Your task to perform on an android device: turn off data saver in the chrome app Image 0: 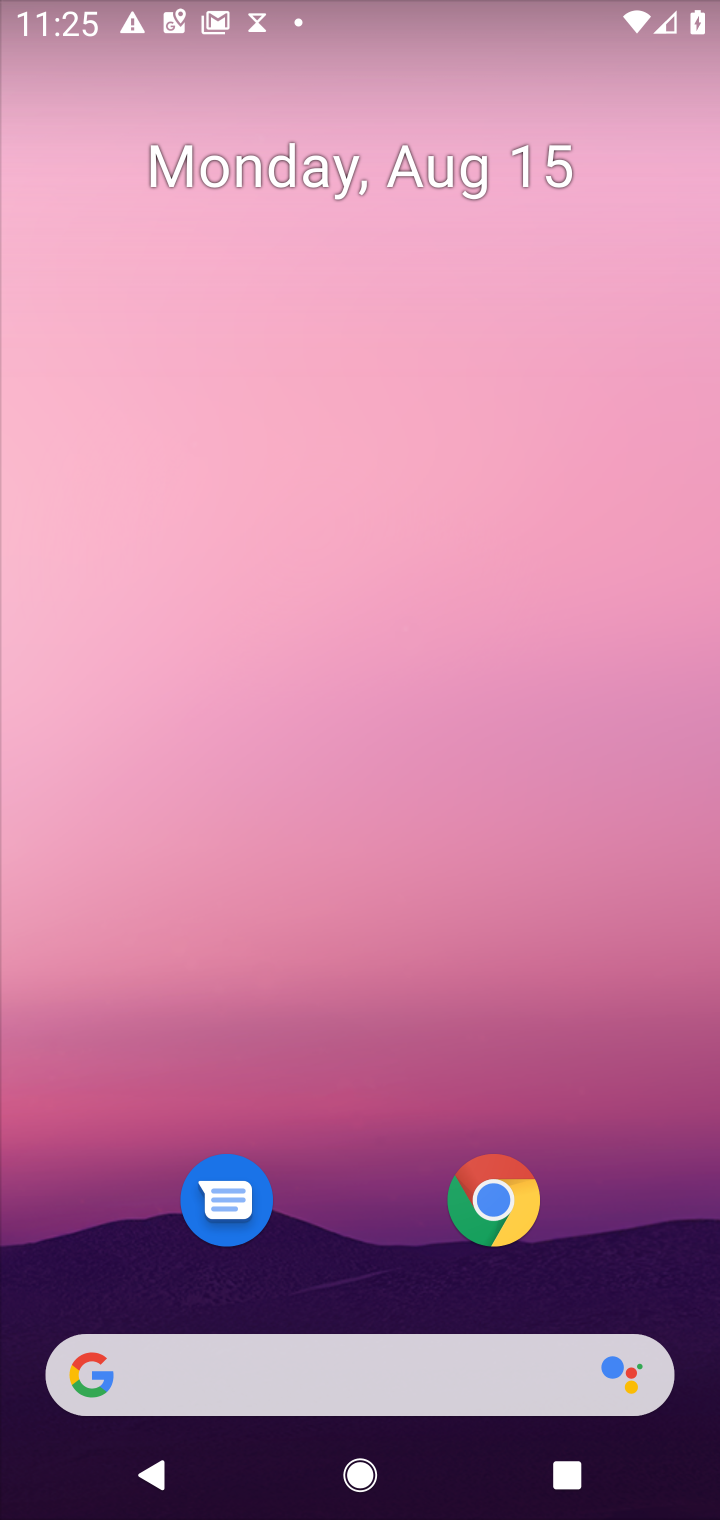
Step 0: click (451, 1205)
Your task to perform on an android device: turn off data saver in the chrome app Image 1: 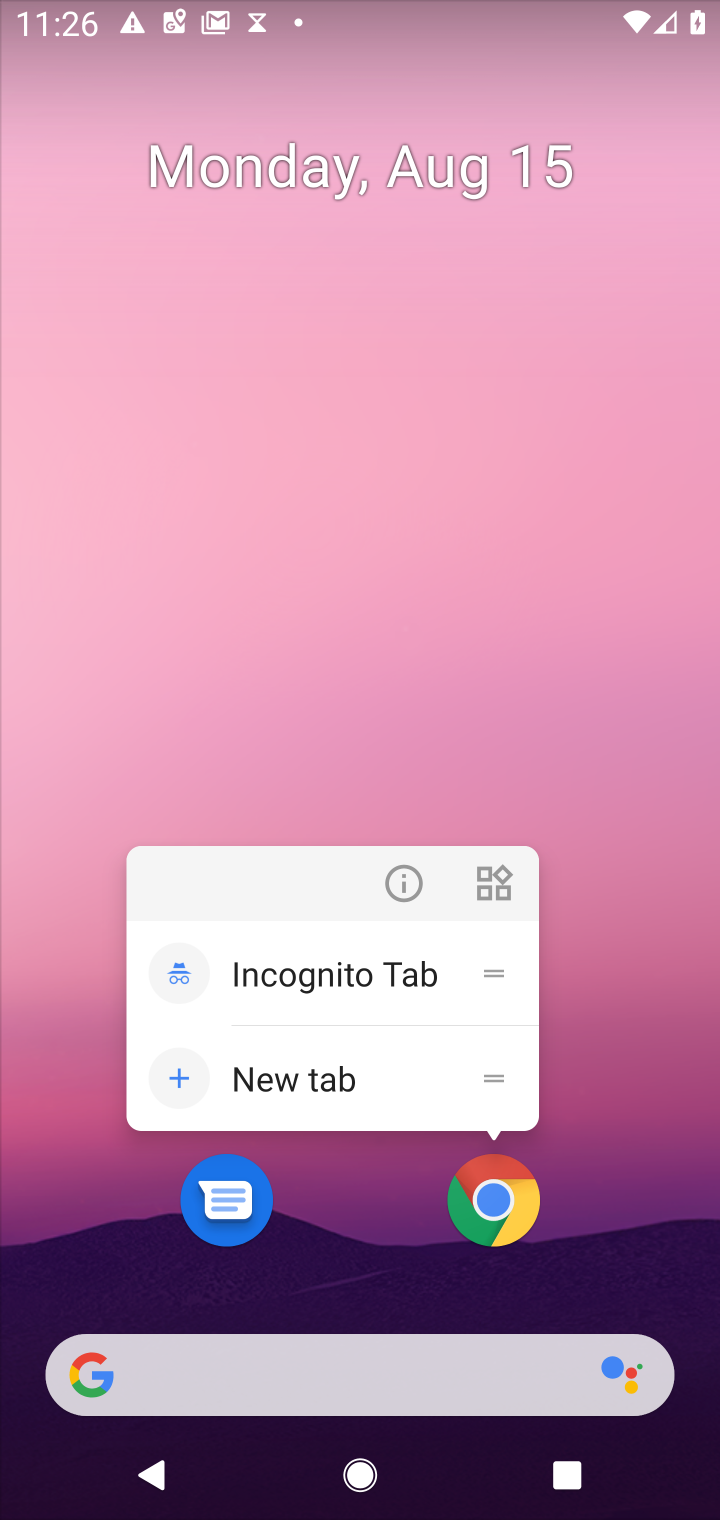
Step 1: click (476, 1215)
Your task to perform on an android device: turn off data saver in the chrome app Image 2: 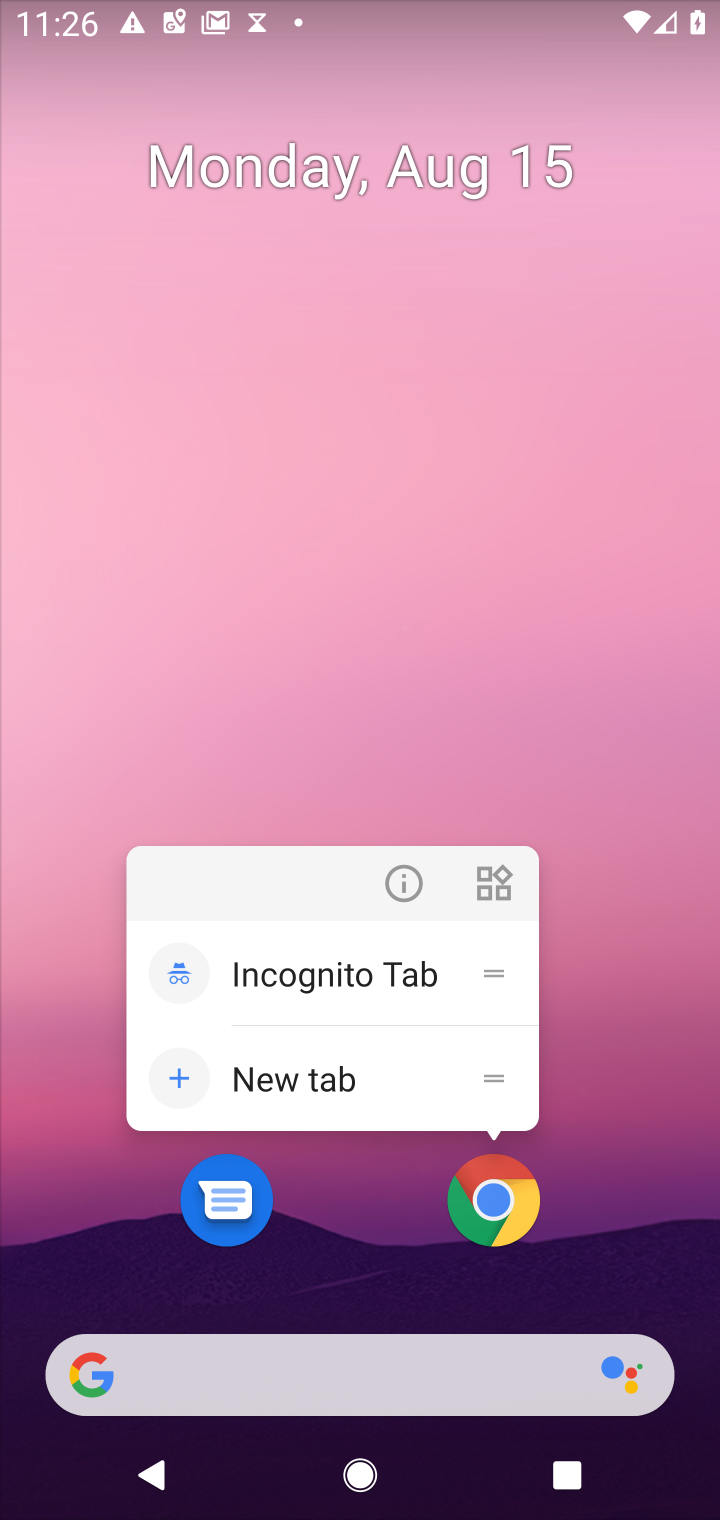
Step 2: click (476, 1215)
Your task to perform on an android device: turn off data saver in the chrome app Image 3: 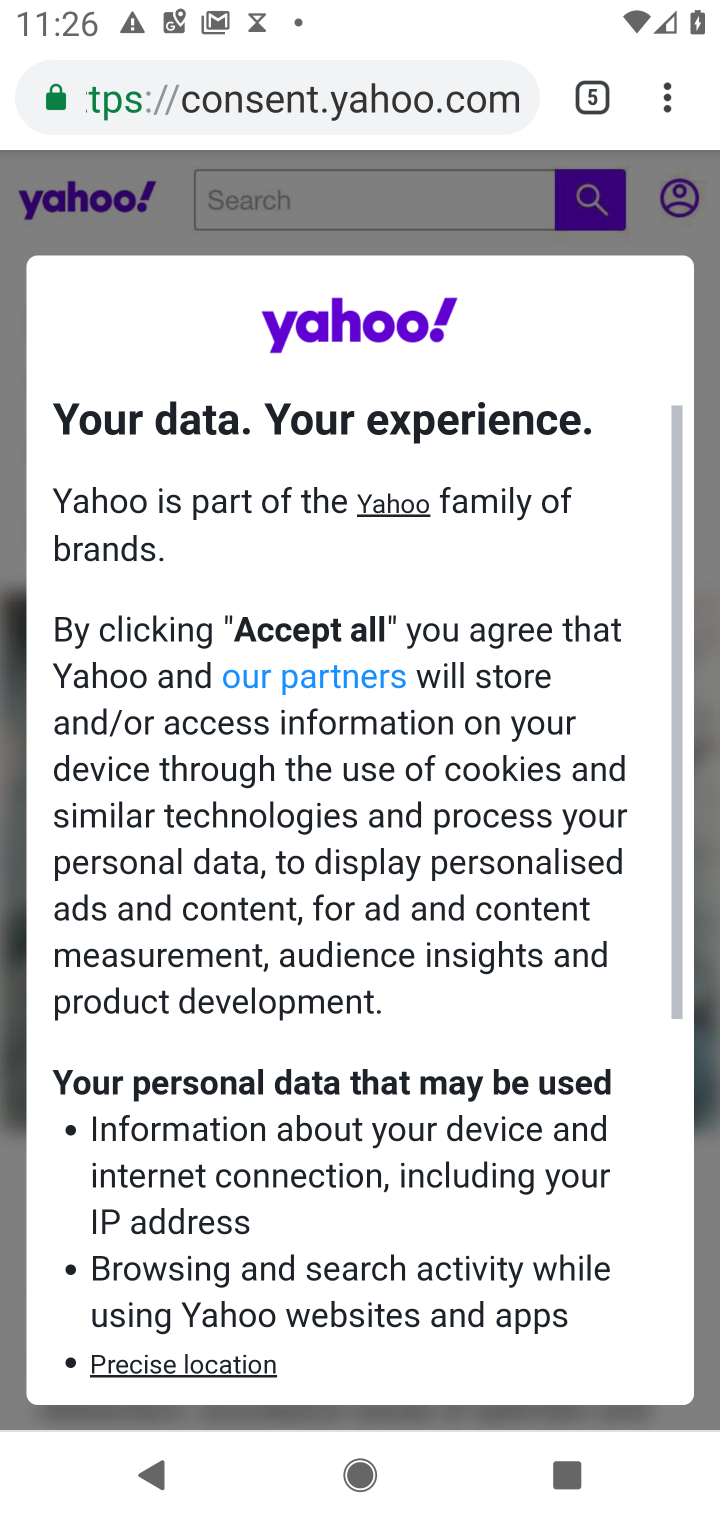
Step 3: click (668, 89)
Your task to perform on an android device: turn off data saver in the chrome app Image 4: 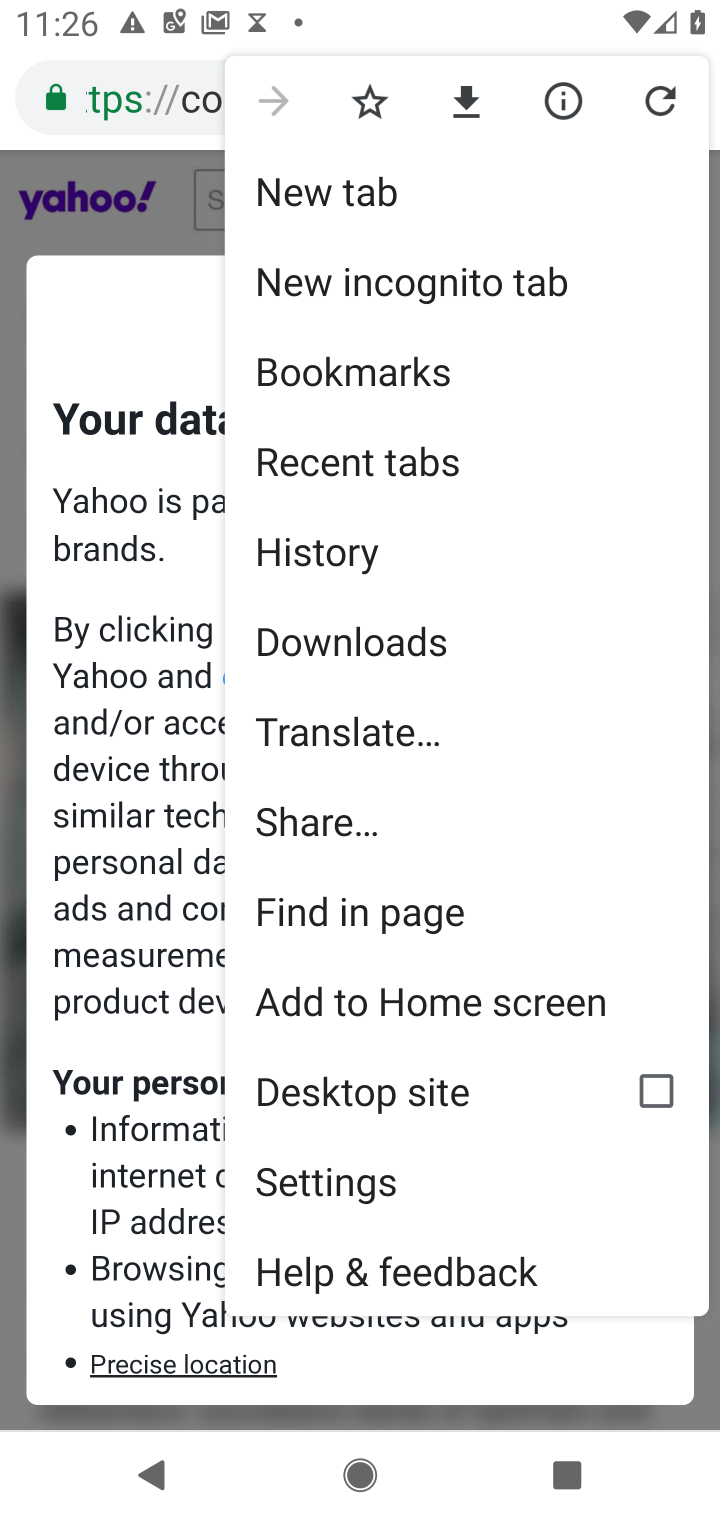
Step 4: click (411, 1172)
Your task to perform on an android device: turn off data saver in the chrome app Image 5: 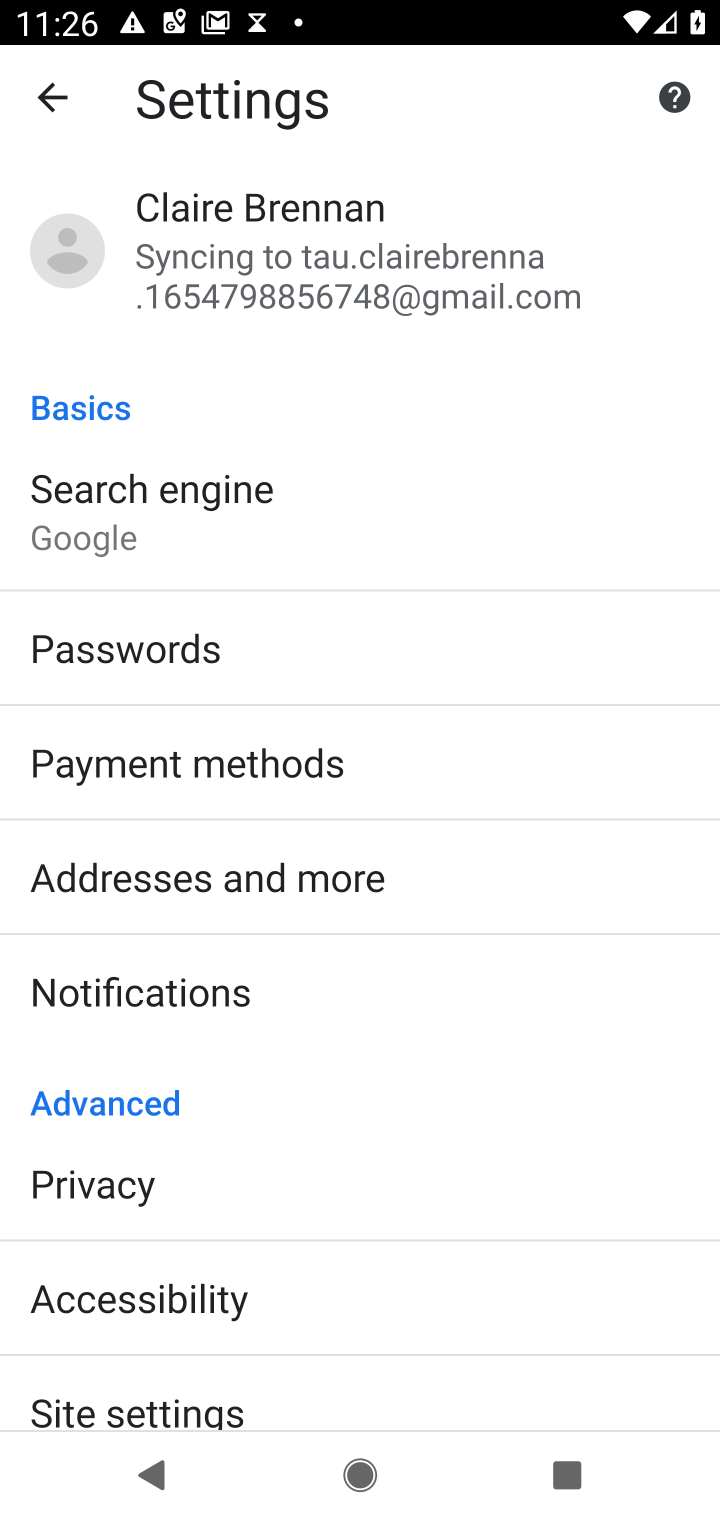
Step 5: drag from (361, 1316) to (366, 699)
Your task to perform on an android device: turn off data saver in the chrome app Image 6: 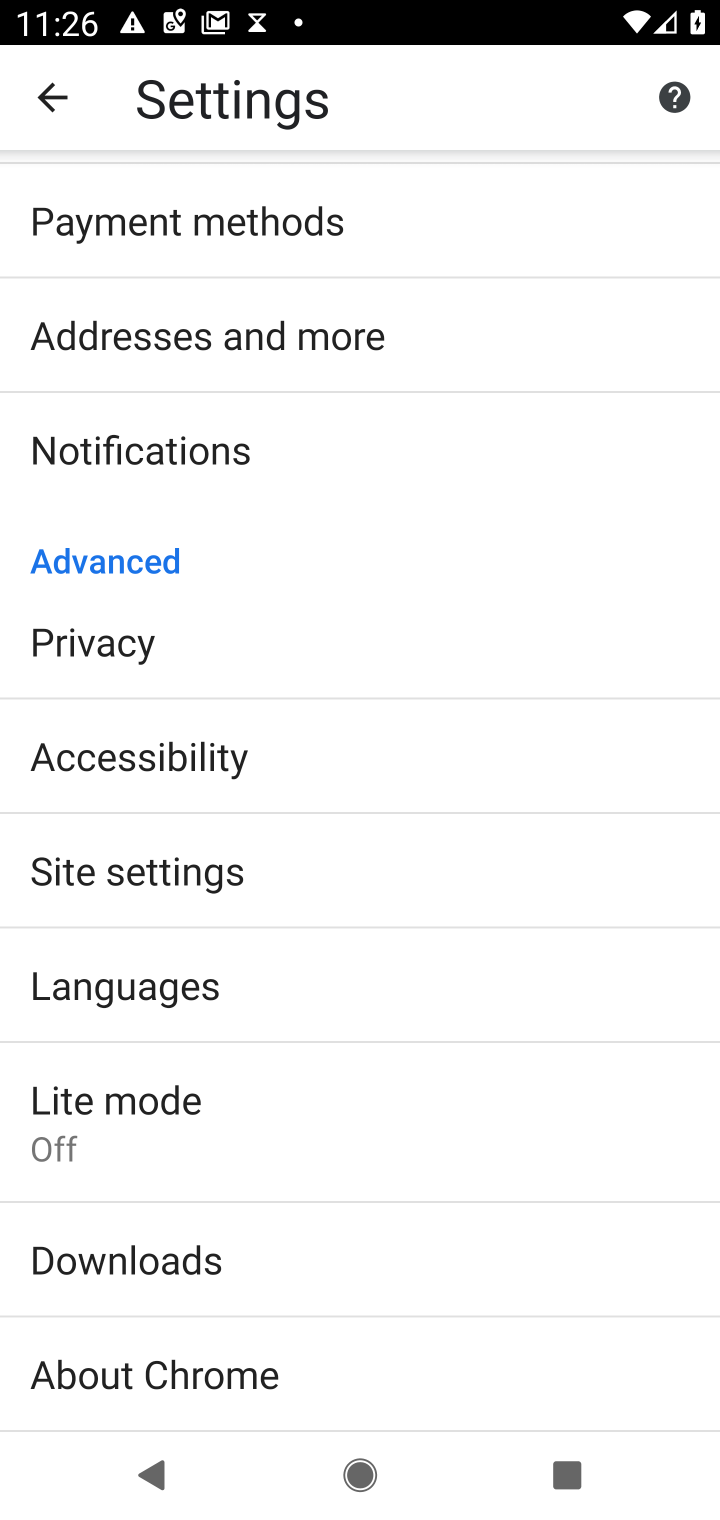
Step 6: click (211, 1132)
Your task to perform on an android device: turn off data saver in the chrome app Image 7: 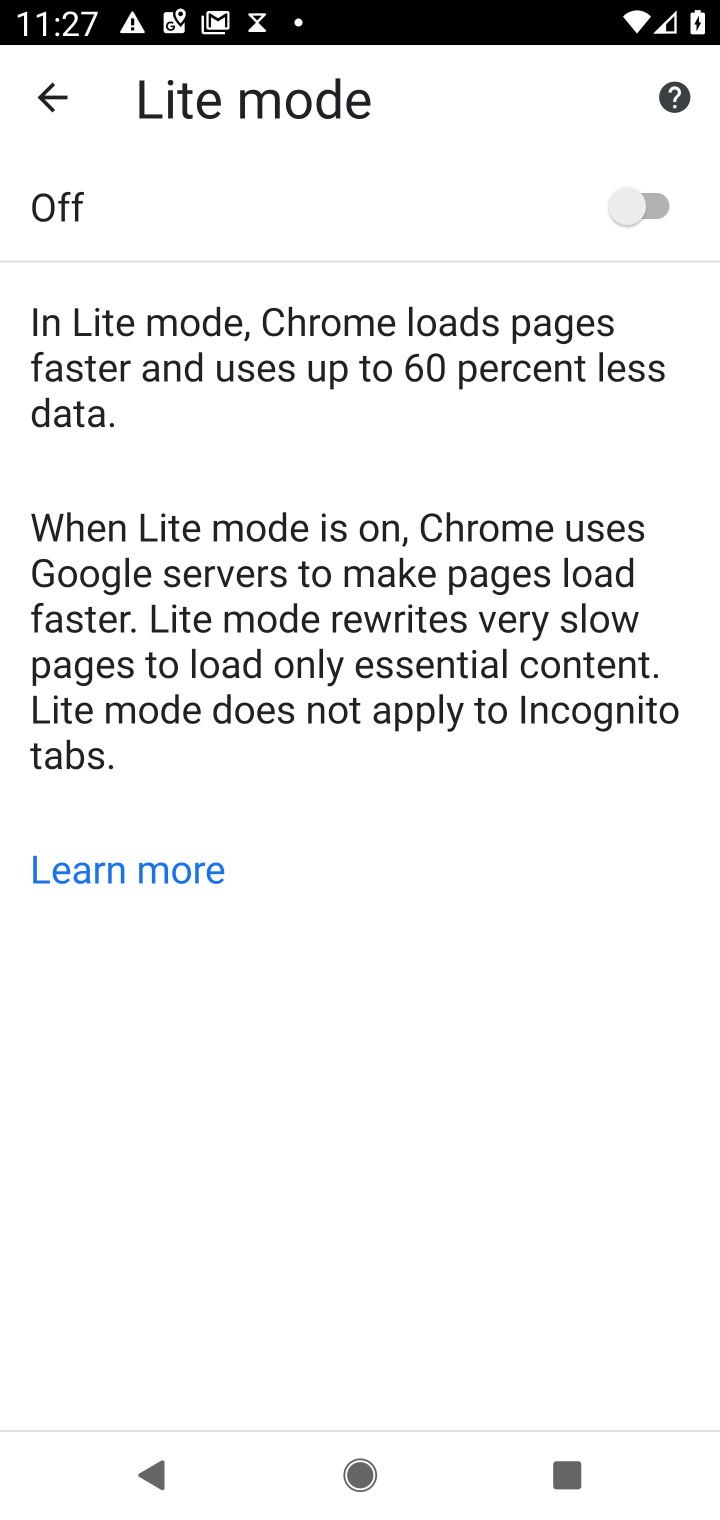
Step 7: task complete